Your task to perform on an android device: toggle improve location accuracy Image 0: 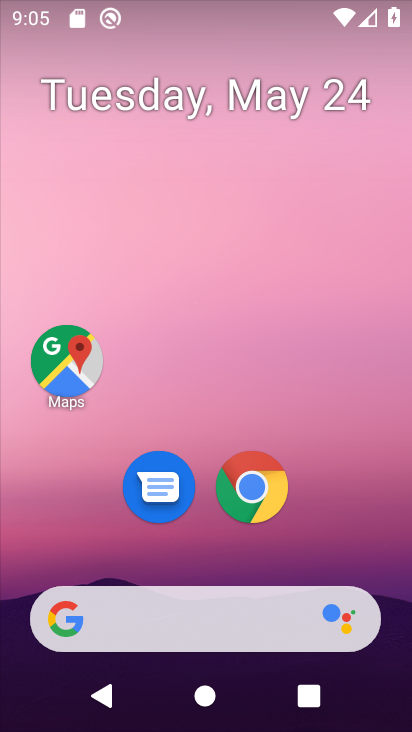
Step 0: drag from (187, 606) to (305, 115)
Your task to perform on an android device: toggle improve location accuracy Image 1: 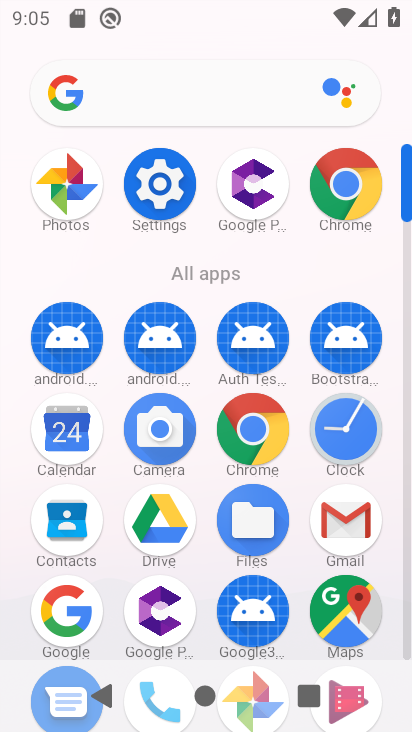
Step 1: click (158, 182)
Your task to perform on an android device: toggle improve location accuracy Image 2: 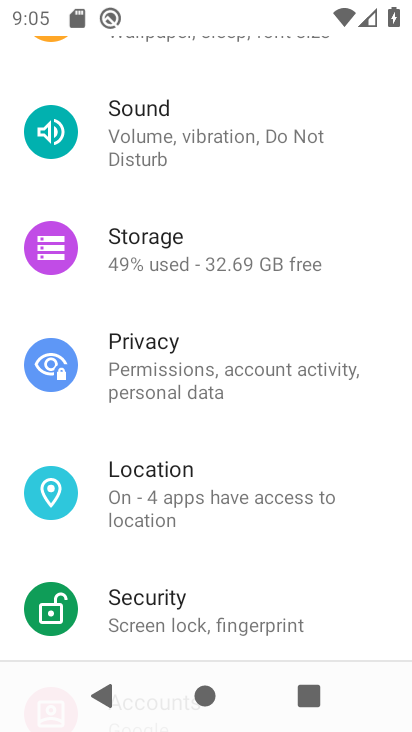
Step 2: click (161, 483)
Your task to perform on an android device: toggle improve location accuracy Image 3: 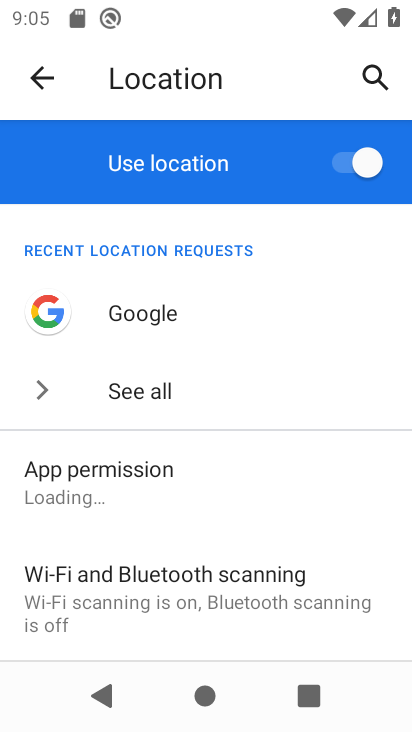
Step 3: drag from (158, 639) to (318, 135)
Your task to perform on an android device: toggle improve location accuracy Image 4: 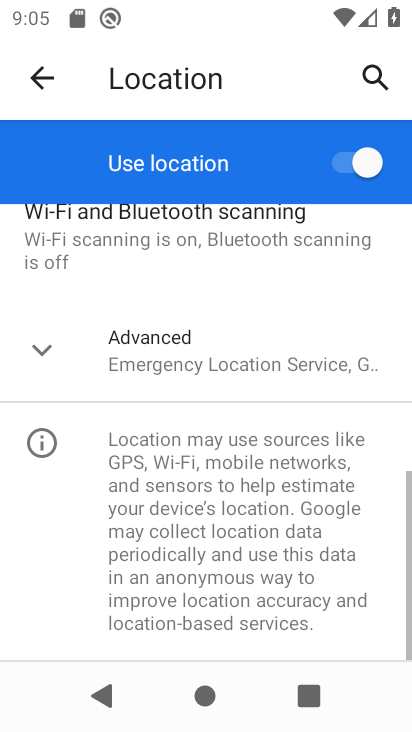
Step 4: click (152, 355)
Your task to perform on an android device: toggle improve location accuracy Image 5: 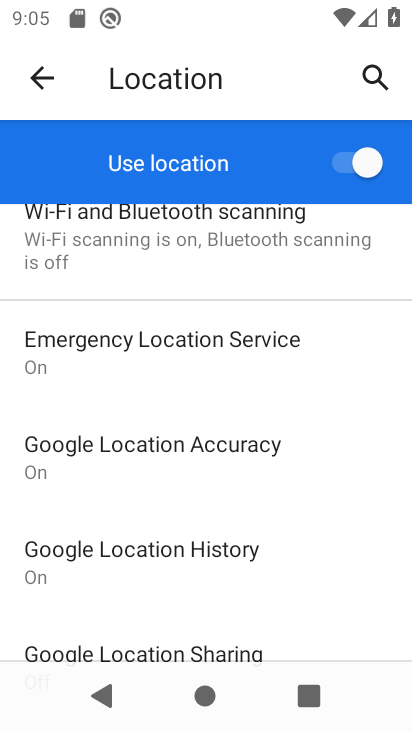
Step 5: click (118, 445)
Your task to perform on an android device: toggle improve location accuracy Image 6: 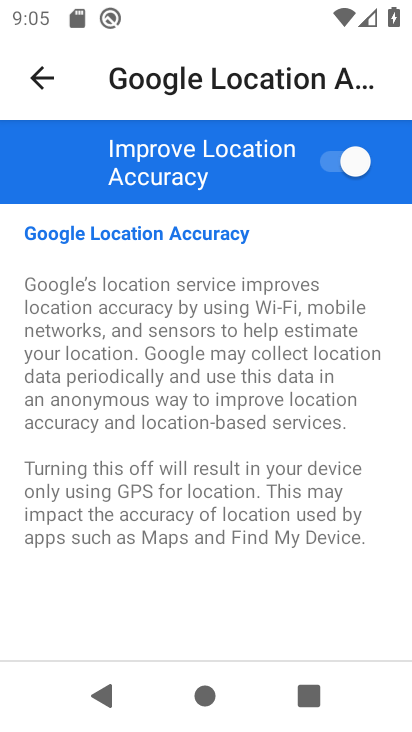
Step 6: click (331, 162)
Your task to perform on an android device: toggle improve location accuracy Image 7: 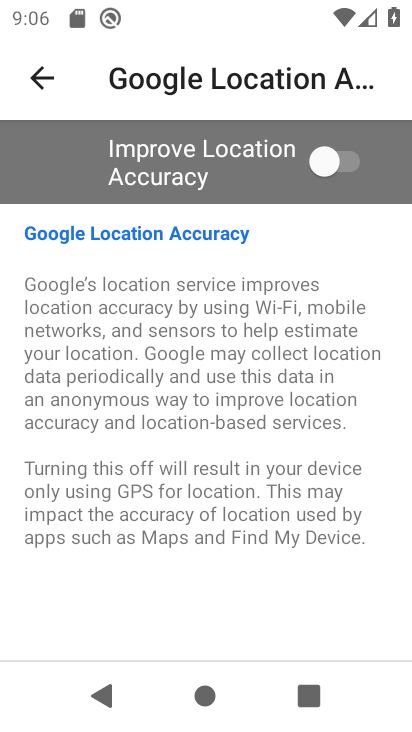
Step 7: task complete